Your task to perform on an android device: Go to accessibility settings Image 0: 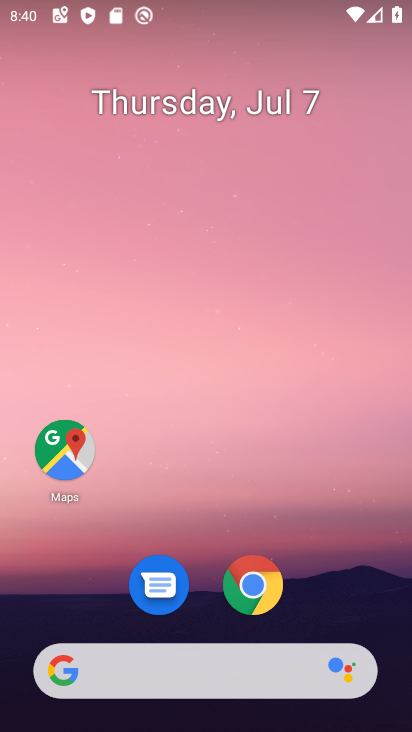
Step 0: drag from (324, 418) to (297, 81)
Your task to perform on an android device: Go to accessibility settings Image 1: 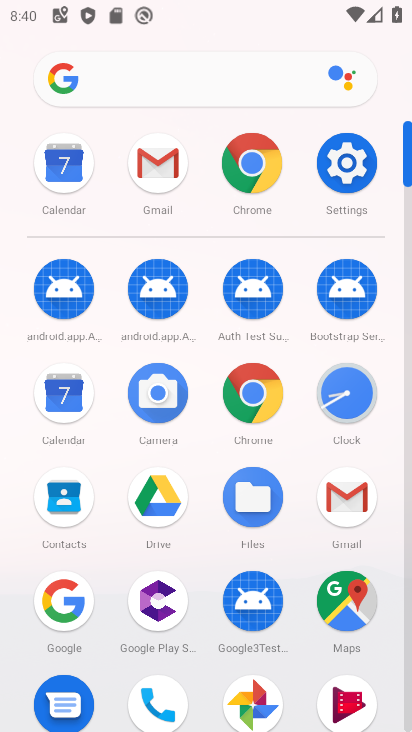
Step 1: click (340, 162)
Your task to perform on an android device: Go to accessibility settings Image 2: 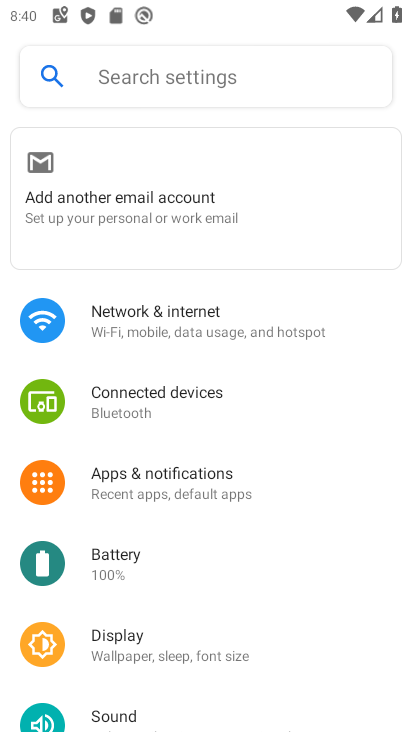
Step 2: drag from (199, 582) to (261, 152)
Your task to perform on an android device: Go to accessibility settings Image 3: 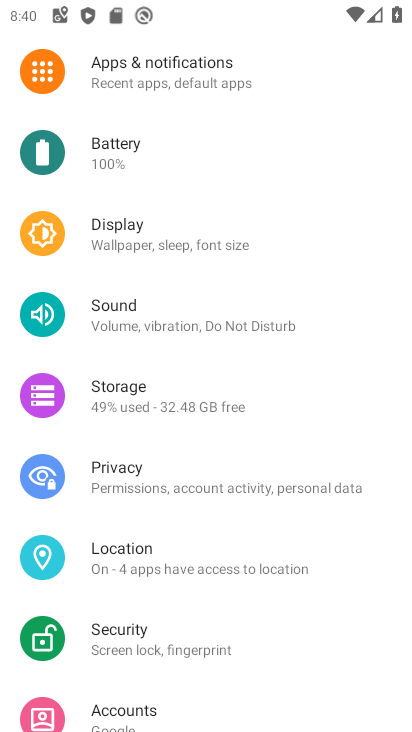
Step 3: drag from (246, 538) to (221, 105)
Your task to perform on an android device: Go to accessibility settings Image 4: 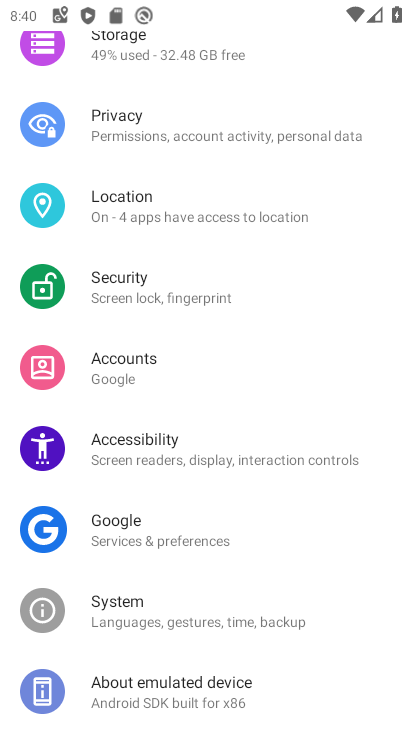
Step 4: click (245, 451)
Your task to perform on an android device: Go to accessibility settings Image 5: 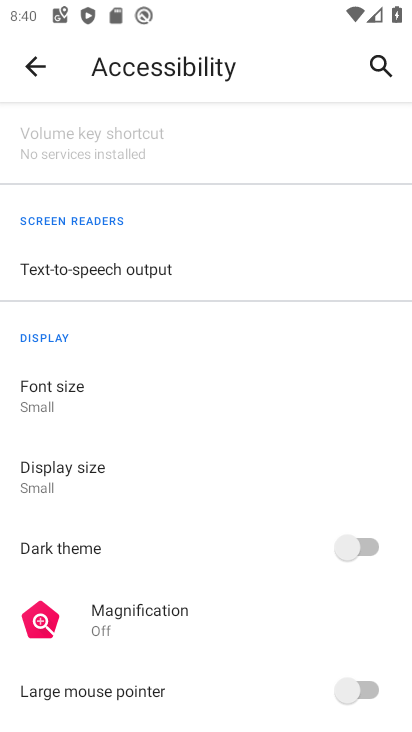
Step 5: task complete